Your task to perform on an android device: change keyboard looks Image 0: 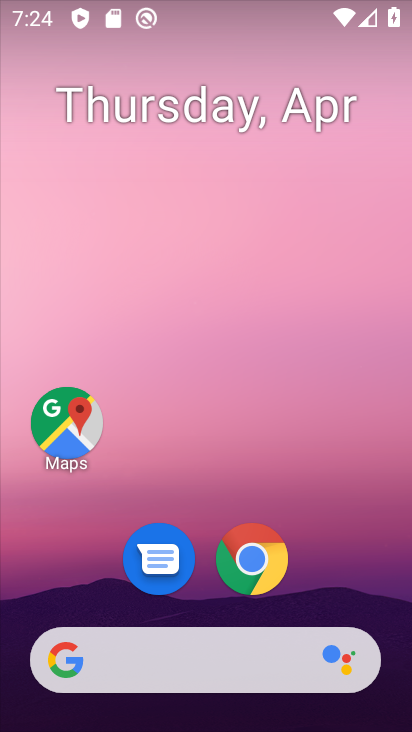
Step 0: drag from (201, 713) to (137, 14)
Your task to perform on an android device: change keyboard looks Image 1: 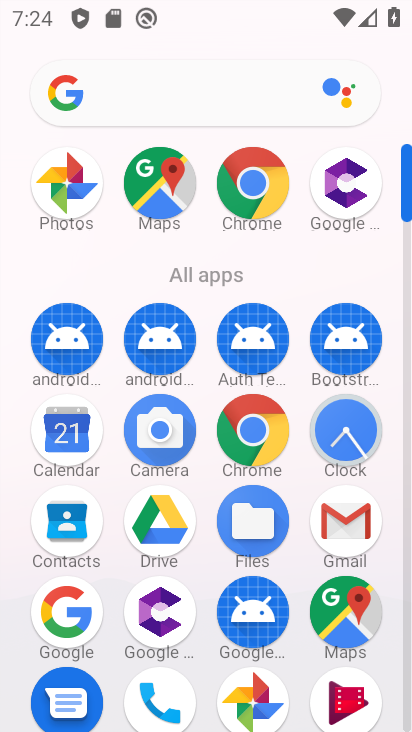
Step 1: drag from (267, 614) to (252, 24)
Your task to perform on an android device: change keyboard looks Image 2: 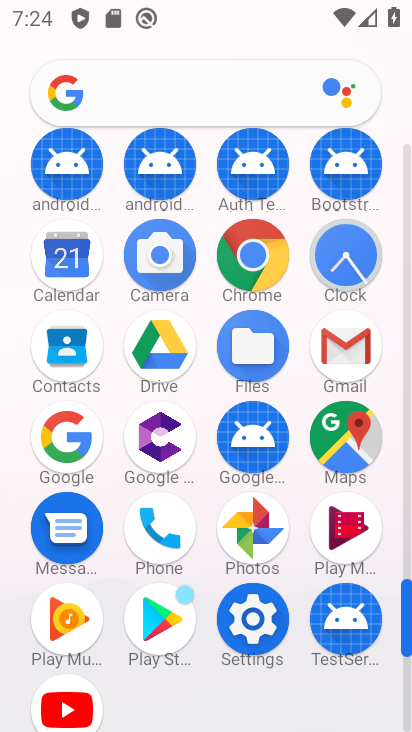
Step 2: click (268, 609)
Your task to perform on an android device: change keyboard looks Image 3: 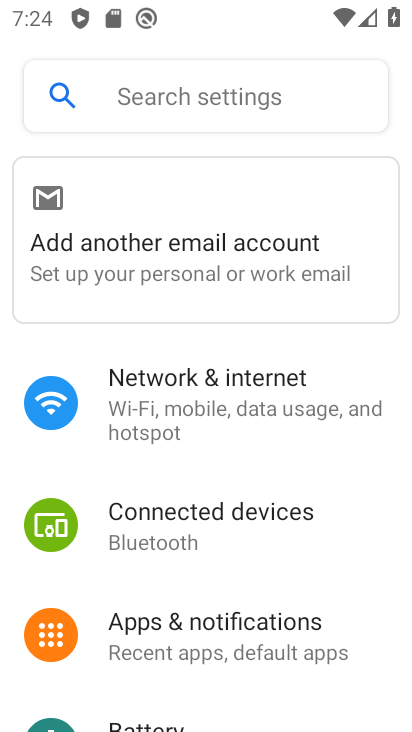
Step 3: drag from (307, 676) to (278, 6)
Your task to perform on an android device: change keyboard looks Image 4: 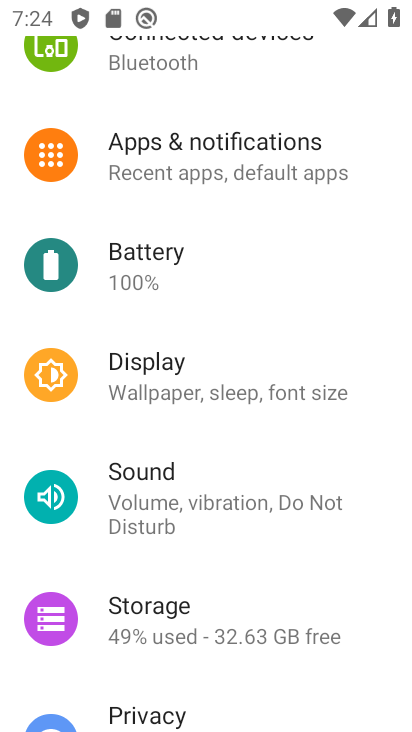
Step 4: drag from (261, 666) to (298, 33)
Your task to perform on an android device: change keyboard looks Image 5: 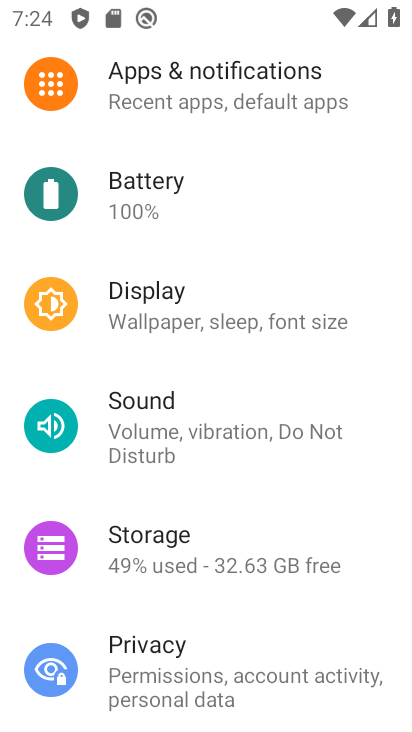
Step 5: drag from (305, 634) to (244, 14)
Your task to perform on an android device: change keyboard looks Image 6: 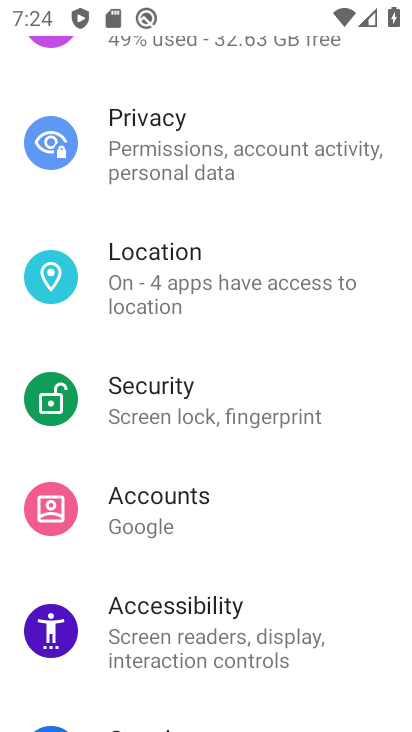
Step 6: drag from (286, 460) to (212, 33)
Your task to perform on an android device: change keyboard looks Image 7: 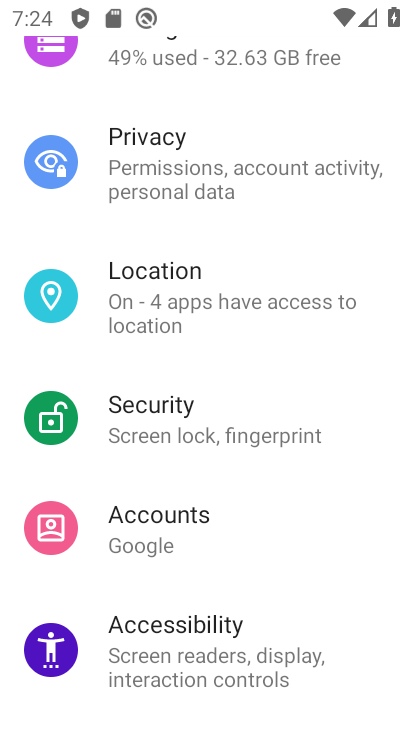
Step 7: drag from (346, 684) to (280, 17)
Your task to perform on an android device: change keyboard looks Image 8: 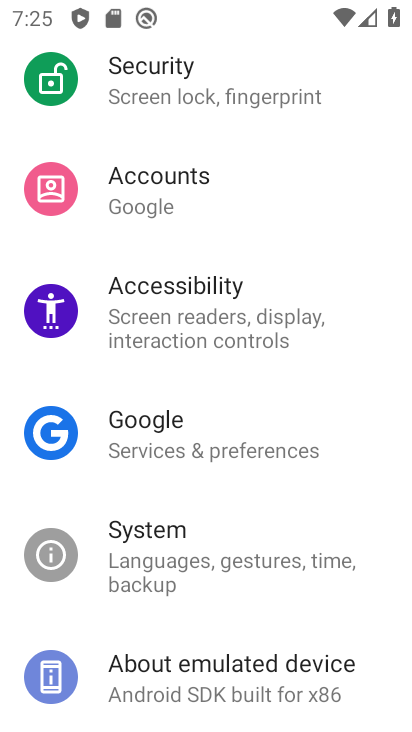
Step 8: drag from (344, 603) to (332, 17)
Your task to perform on an android device: change keyboard looks Image 9: 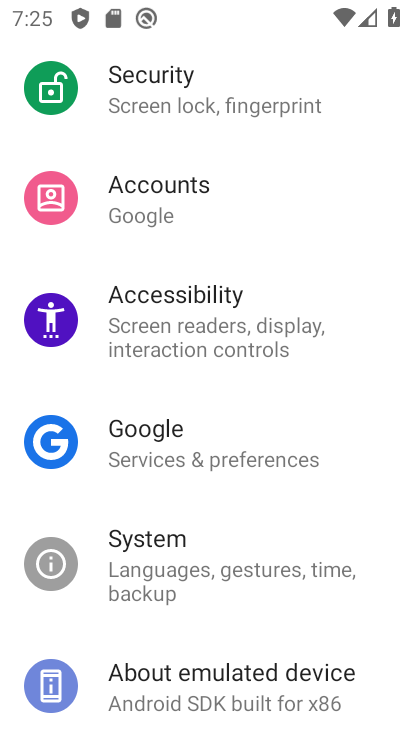
Step 9: drag from (398, 655) to (402, 9)
Your task to perform on an android device: change keyboard looks Image 10: 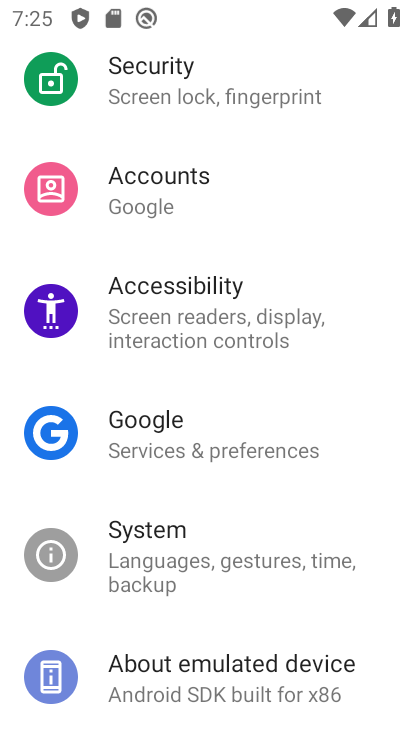
Step 10: drag from (360, 637) to (332, 17)
Your task to perform on an android device: change keyboard looks Image 11: 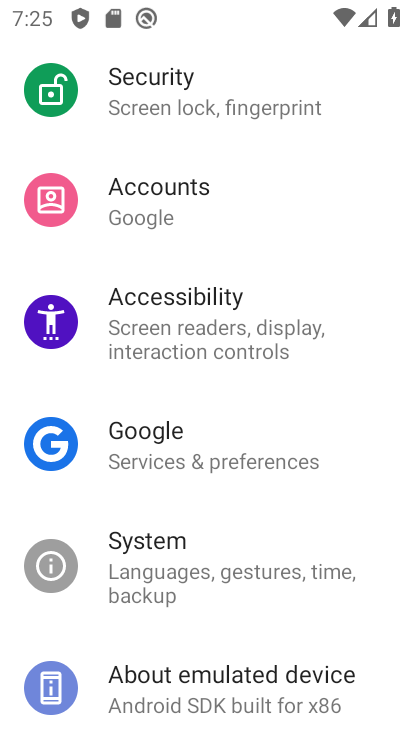
Step 11: click (252, 571)
Your task to perform on an android device: change keyboard looks Image 12: 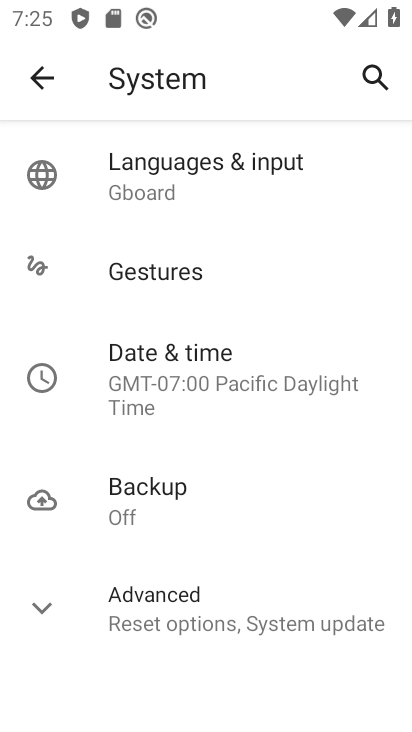
Step 12: click (226, 173)
Your task to perform on an android device: change keyboard looks Image 13: 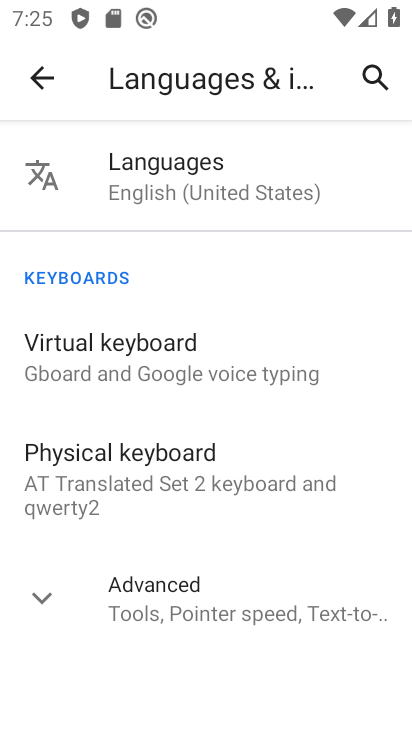
Step 13: click (165, 351)
Your task to perform on an android device: change keyboard looks Image 14: 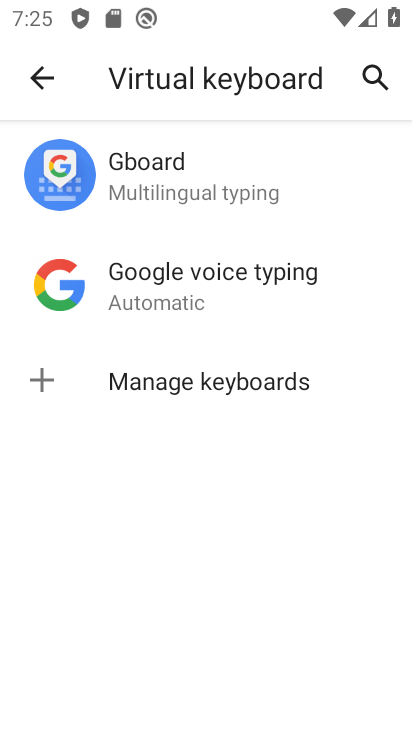
Step 14: click (181, 177)
Your task to perform on an android device: change keyboard looks Image 15: 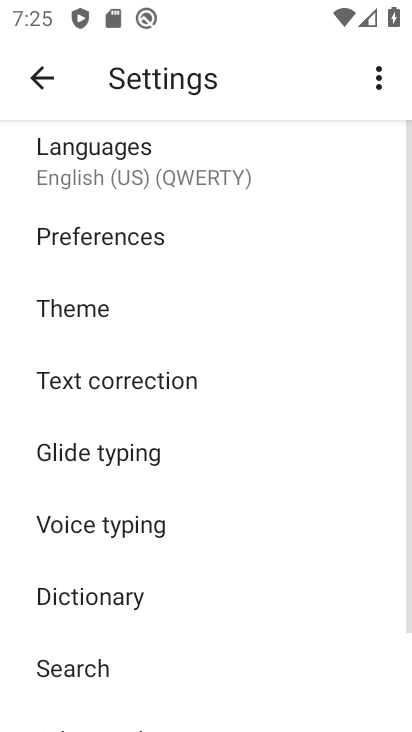
Step 15: click (87, 297)
Your task to perform on an android device: change keyboard looks Image 16: 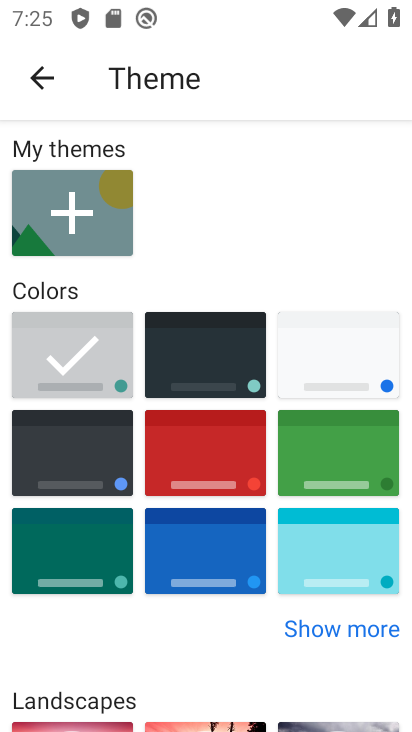
Step 16: click (229, 448)
Your task to perform on an android device: change keyboard looks Image 17: 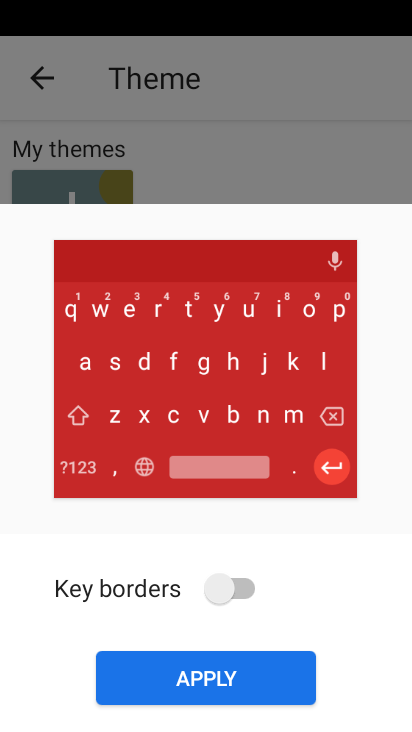
Step 17: click (213, 682)
Your task to perform on an android device: change keyboard looks Image 18: 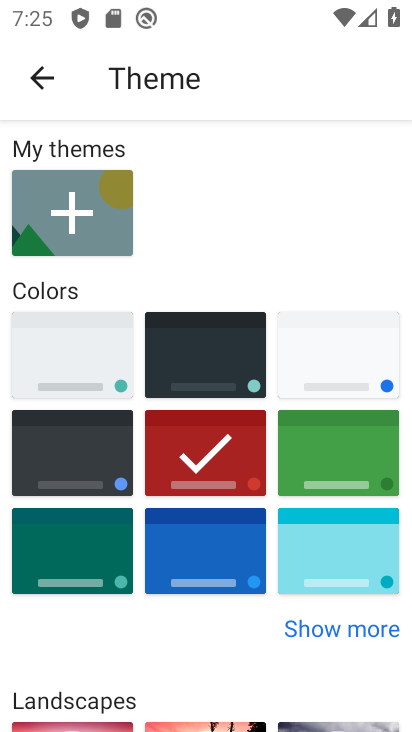
Step 18: task complete